Your task to perform on an android device: Search for seafood restaurants on Google Maps Image 0: 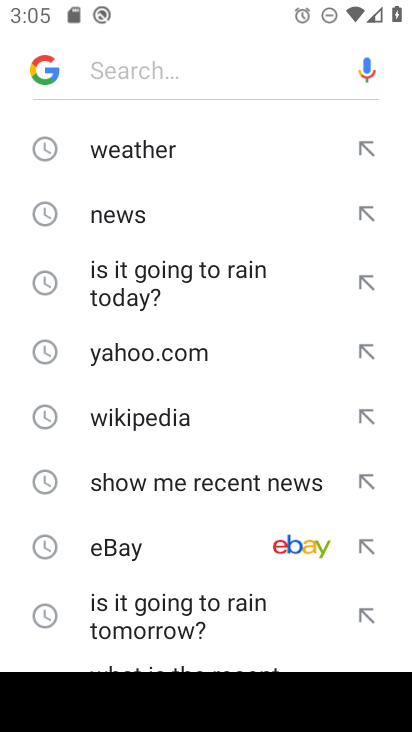
Step 0: drag from (237, 579) to (189, 101)
Your task to perform on an android device: Search for seafood restaurants on Google Maps Image 1: 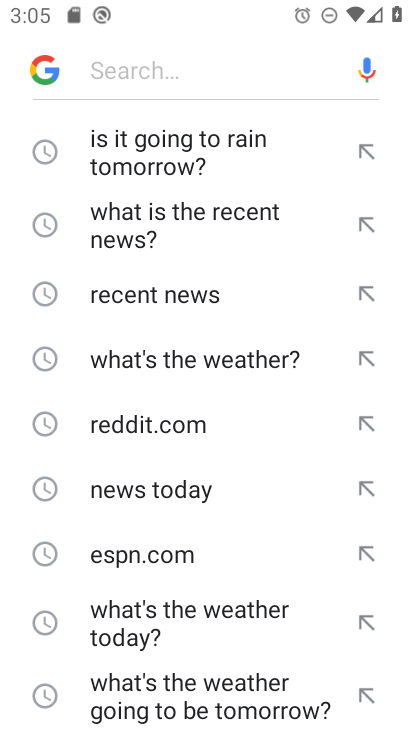
Step 1: press home button
Your task to perform on an android device: Search for seafood restaurants on Google Maps Image 2: 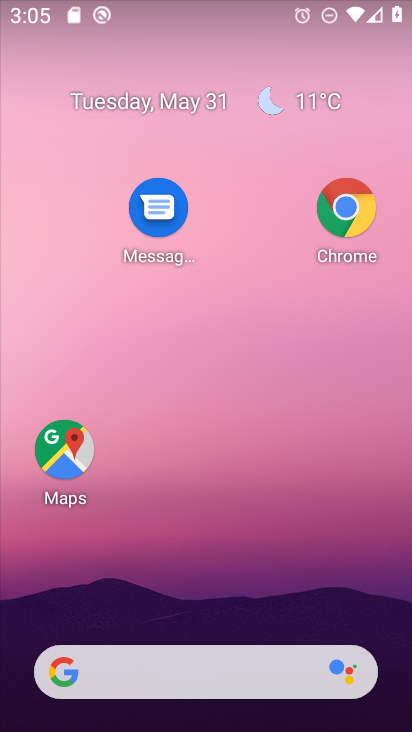
Step 2: drag from (201, 602) to (193, 76)
Your task to perform on an android device: Search for seafood restaurants on Google Maps Image 3: 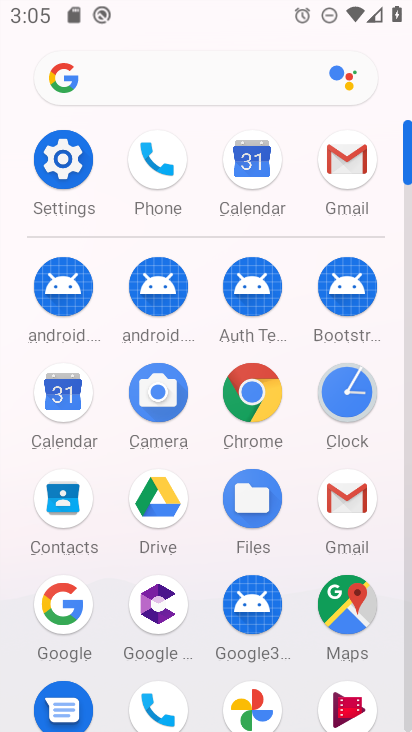
Step 3: click (323, 596)
Your task to perform on an android device: Search for seafood restaurants on Google Maps Image 4: 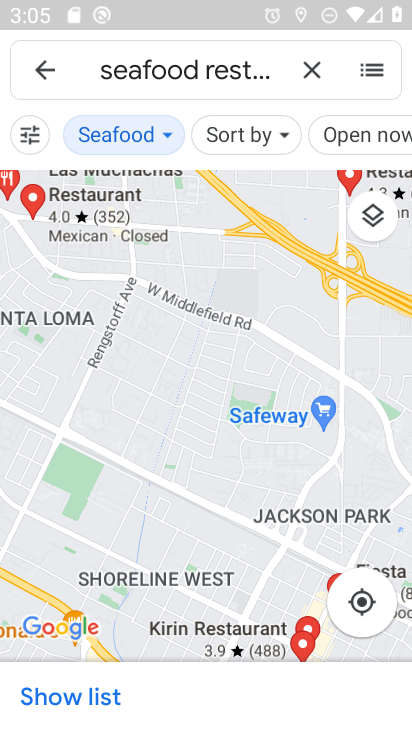
Step 4: task complete